Your task to perform on an android device: Search for vegetarian restaurants on Maps Image 0: 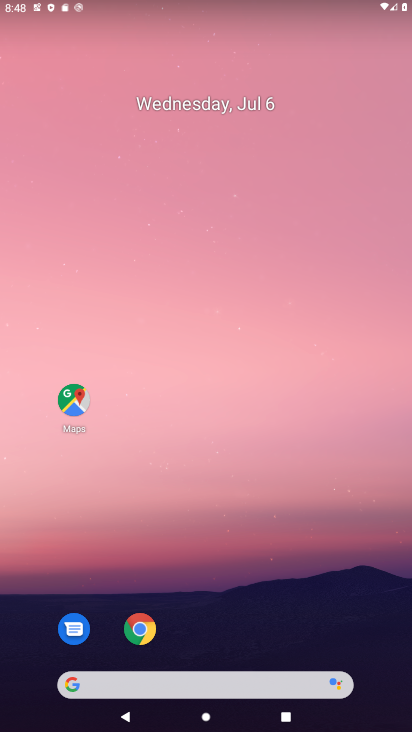
Step 0: drag from (270, 594) to (295, 55)
Your task to perform on an android device: Search for vegetarian restaurants on Maps Image 1: 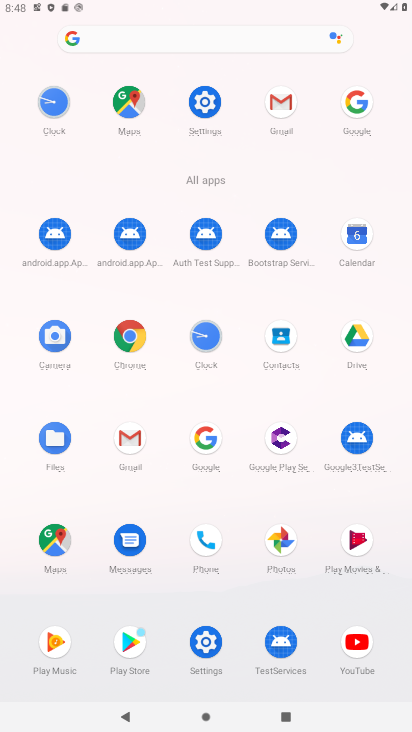
Step 1: click (57, 540)
Your task to perform on an android device: Search for vegetarian restaurants on Maps Image 2: 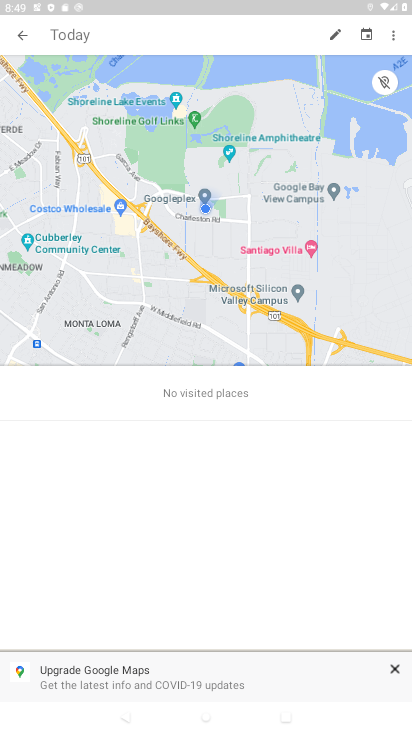
Step 2: press back button
Your task to perform on an android device: Search for vegetarian restaurants on Maps Image 3: 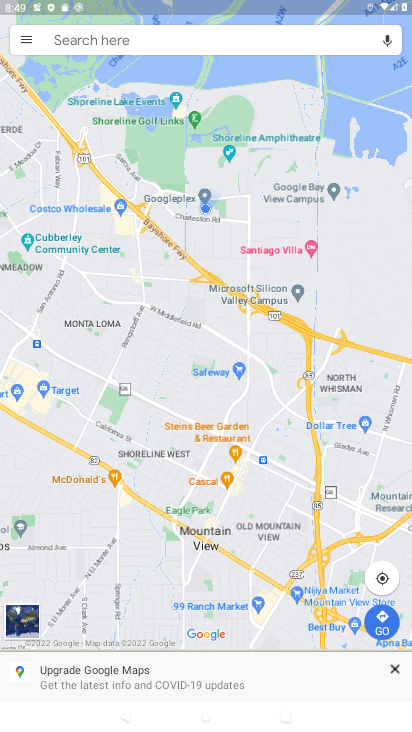
Step 3: click (246, 36)
Your task to perform on an android device: Search for vegetarian restaurants on Maps Image 4: 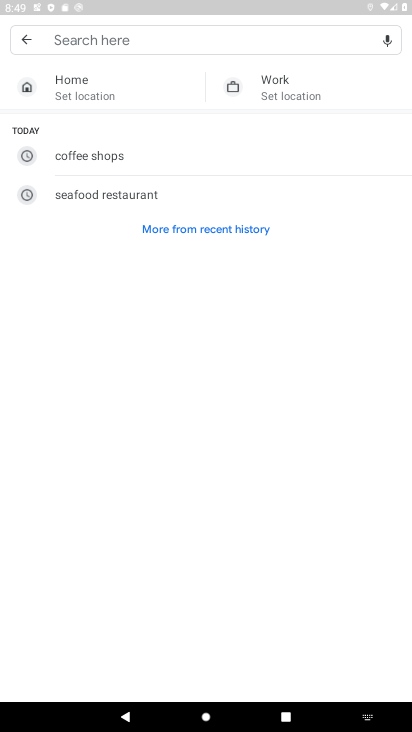
Step 4: type "vegetarian restaurants"
Your task to perform on an android device: Search for vegetarian restaurants on Maps Image 5: 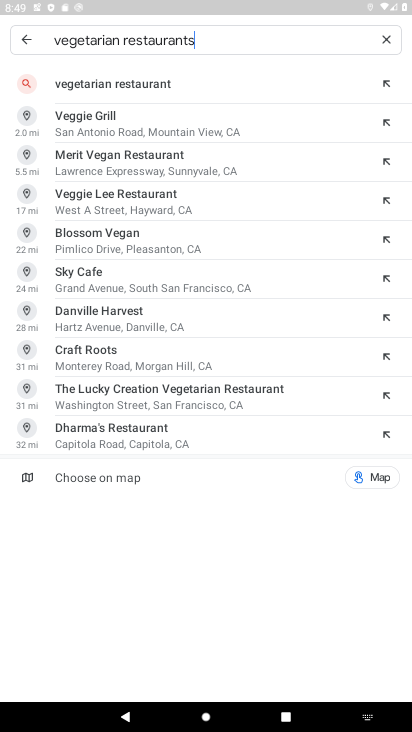
Step 5: click (154, 89)
Your task to perform on an android device: Search for vegetarian restaurants on Maps Image 6: 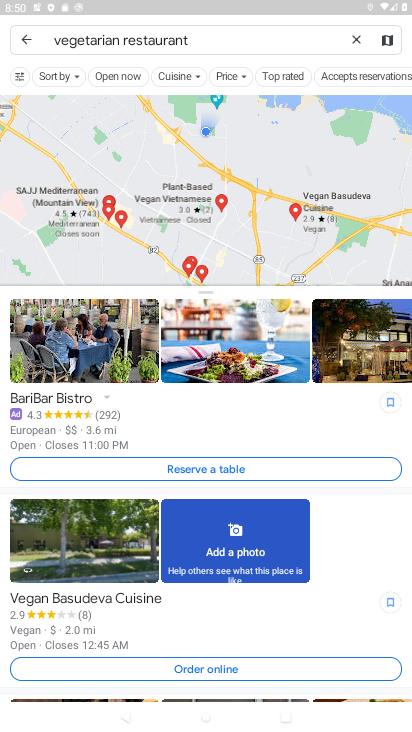
Step 6: task complete